Your task to perform on an android device: install app "McDonald's" Image 0: 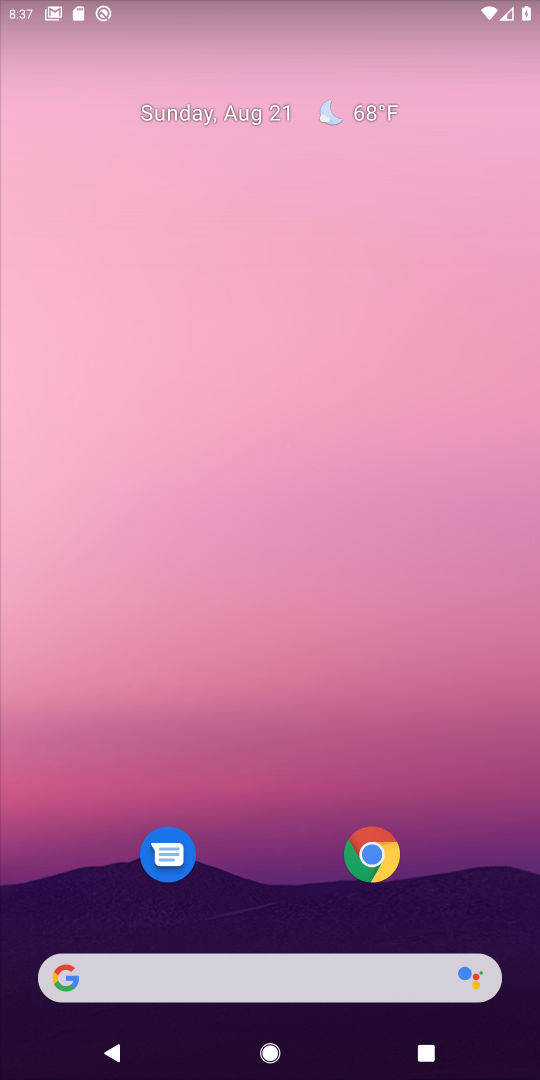
Step 0: drag from (253, 922) to (338, 62)
Your task to perform on an android device: install app "McDonald's" Image 1: 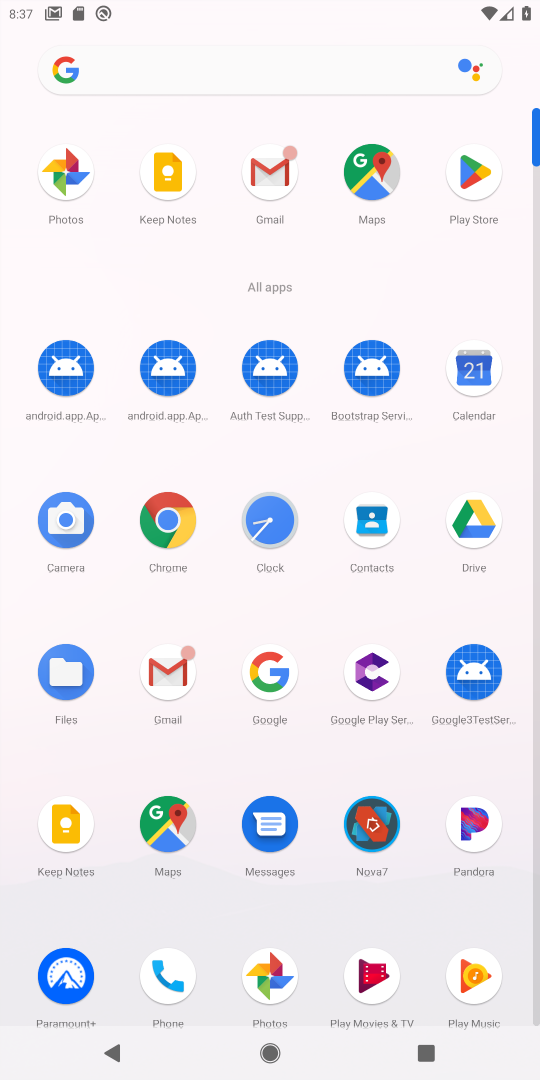
Step 1: click (466, 182)
Your task to perform on an android device: install app "McDonald's" Image 2: 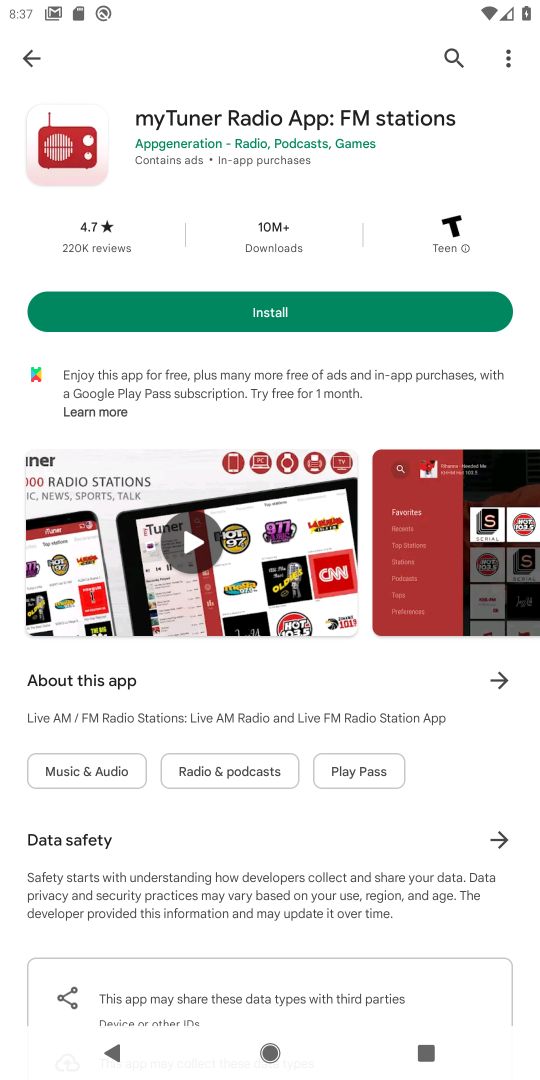
Step 2: click (461, 78)
Your task to perform on an android device: install app "McDonald's" Image 3: 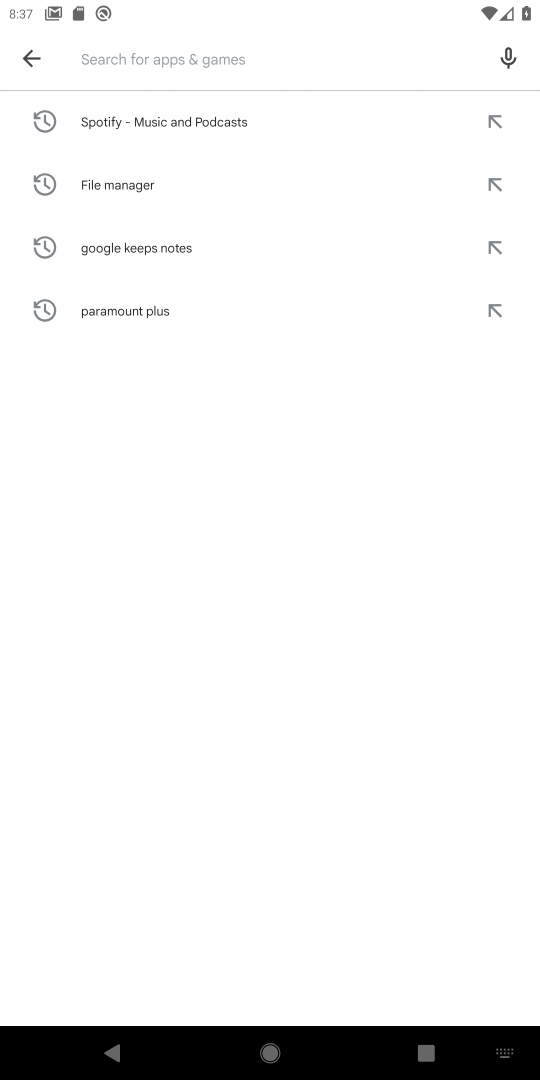
Step 3: type "Mcdolanfd"
Your task to perform on an android device: install app "McDonald's" Image 4: 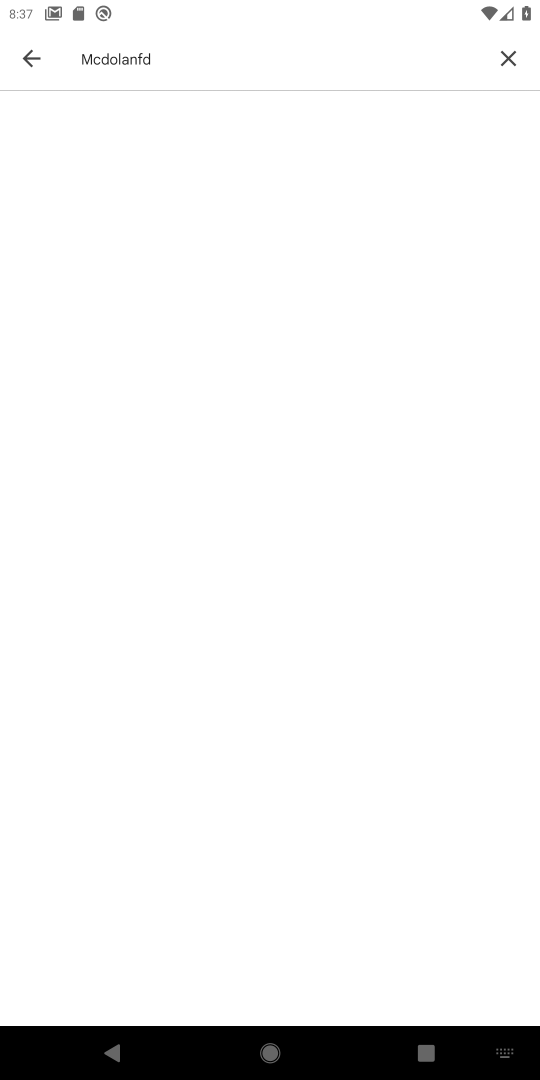
Step 4: click (500, 56)
Your task to perform on an android device: install app "McDonald's" Image 5: 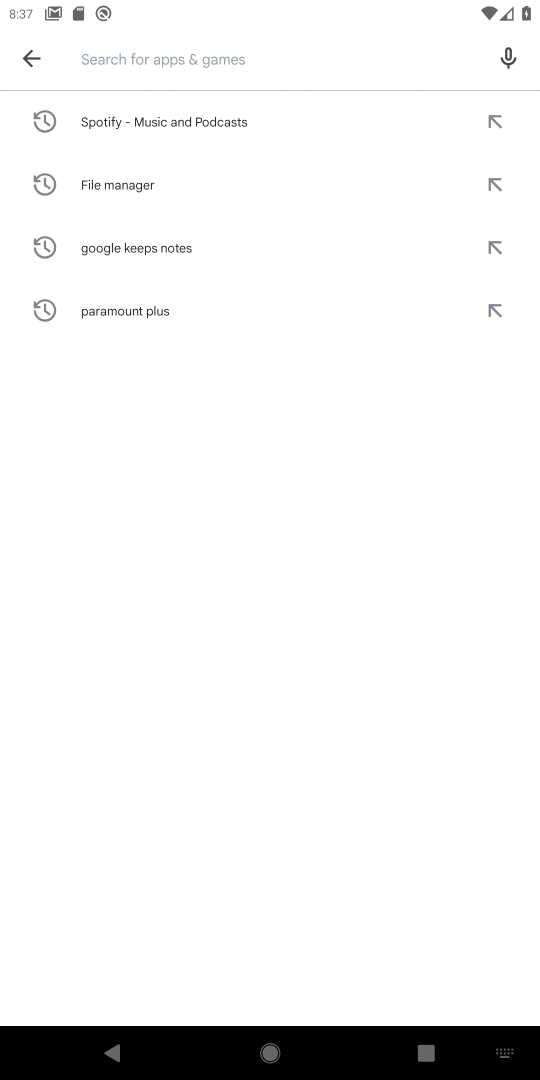
Step 5: type "Mcdoland"
Your task to perform on an android device: install app "McDonald's" Image 6: 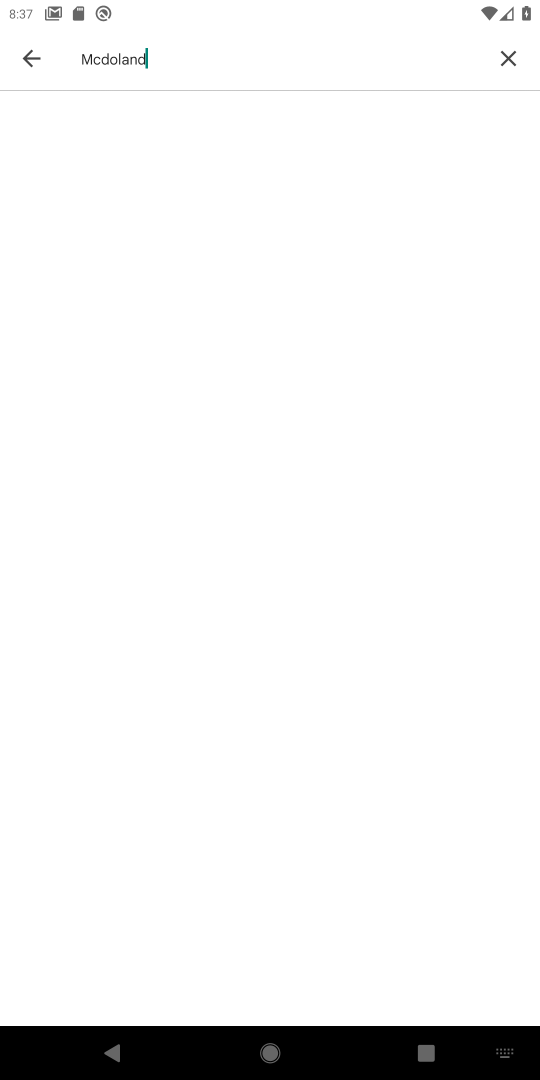
Step 6: click (208, 112)
Your task to perform on an android device: install app "McDonald's" Image 7: 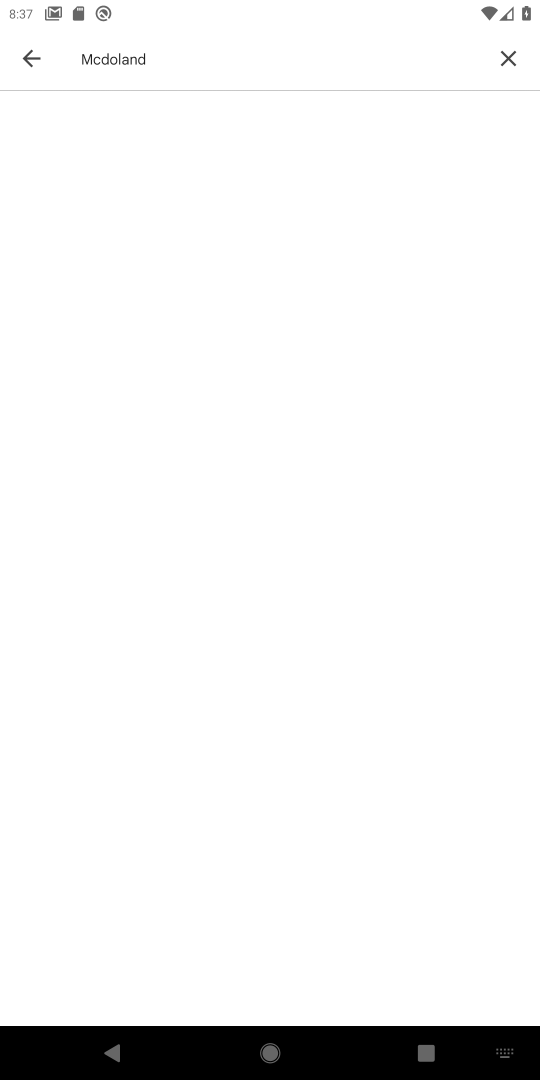
Step 7: task complete